Your task to perform on an android device: Go to Wikipedia Image 0: 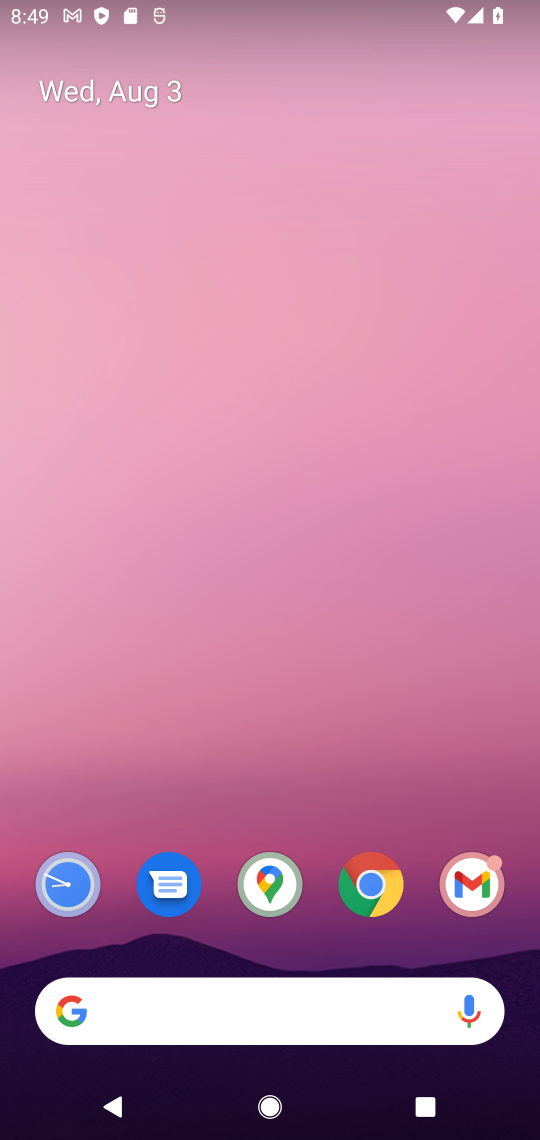
Step 0: click (169, 1020)
Your task to perform on an android device: Go to Wikipedia Image 1: 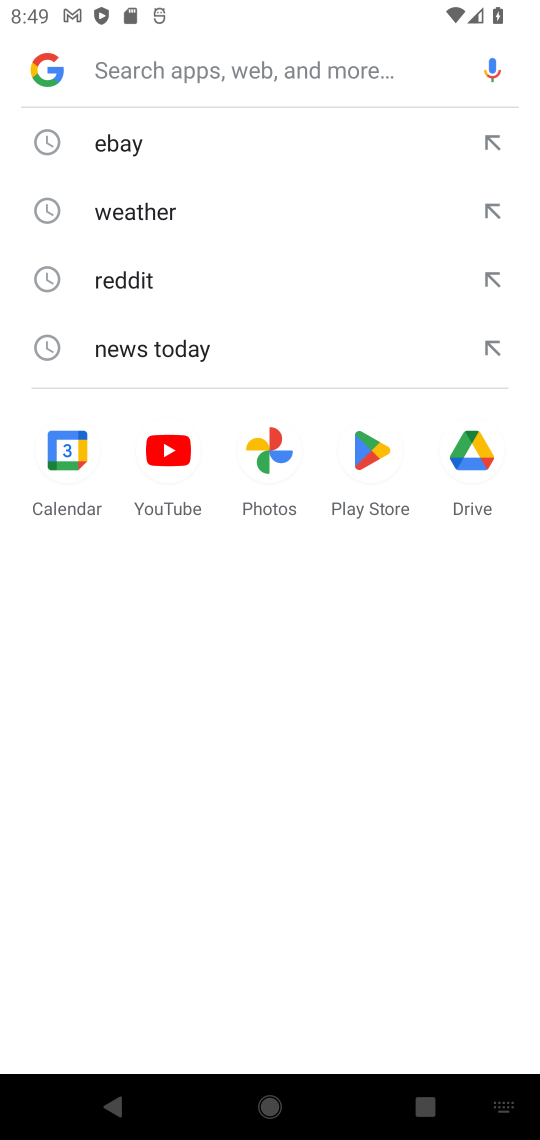
Step 1: type "Wikipedia"
Your task to perform on an android device: Go to Wikipedia Image 2: 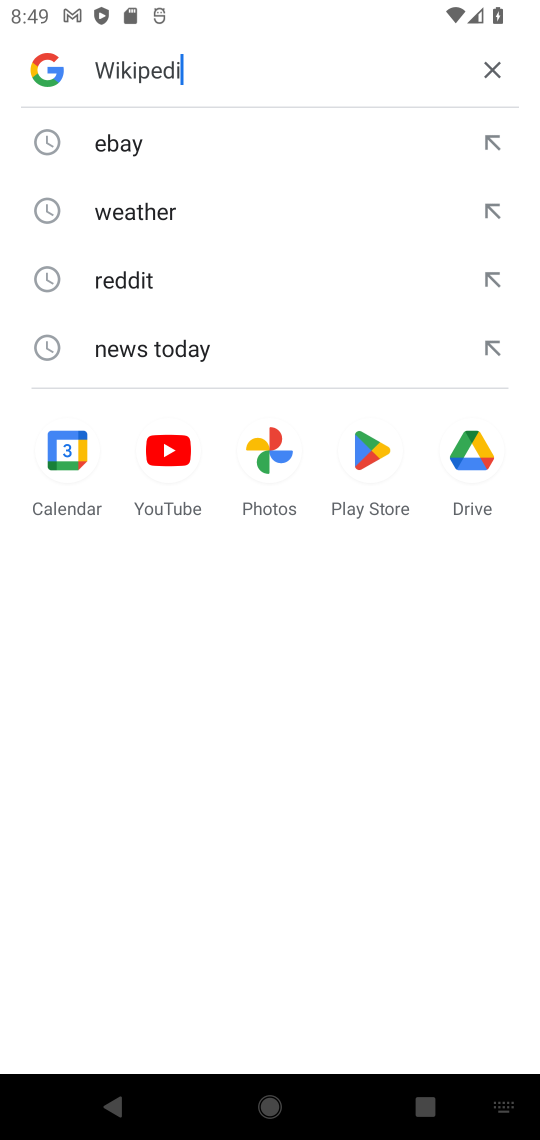
Step 2: type ""
Your task to perform on an android device: Go to Wikipedia Image 3: 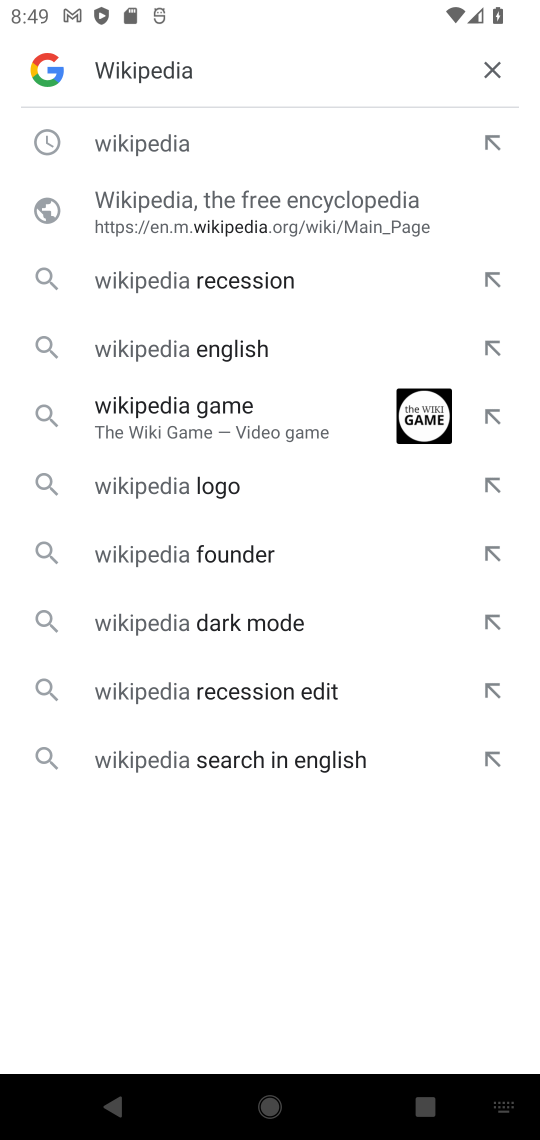
Step 3: click (149, 140)
Your task to perform on an android device: Go to Wikipedia Image 4: 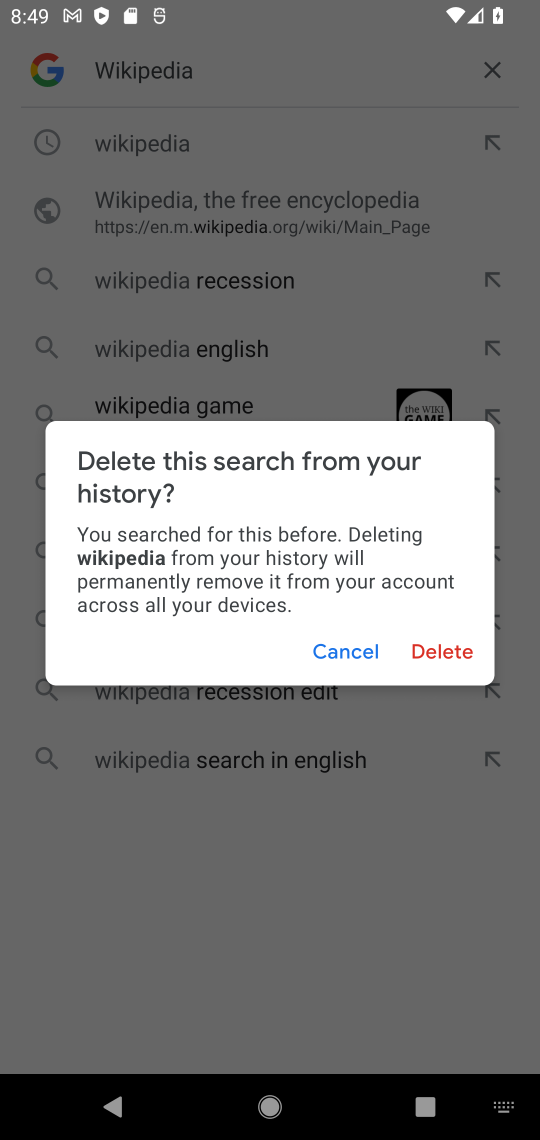
Step 4: click (354, 651)
Your task to perform on an android device: Go to Wikipedia Image 5: 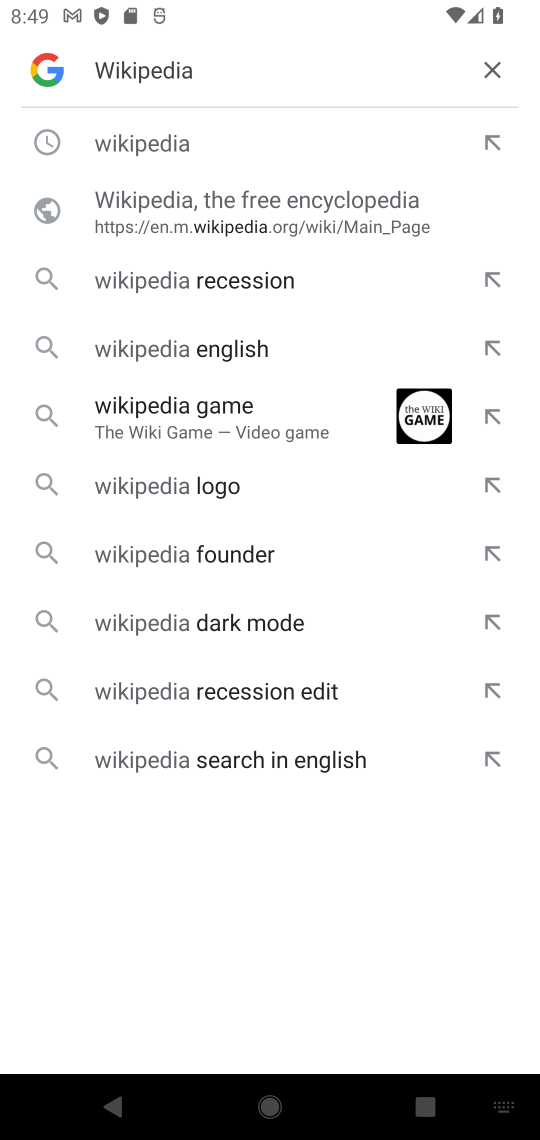
Step 5: click (155, 161)
Your task to perform on an android device: Go to Wikipedia Image 6: 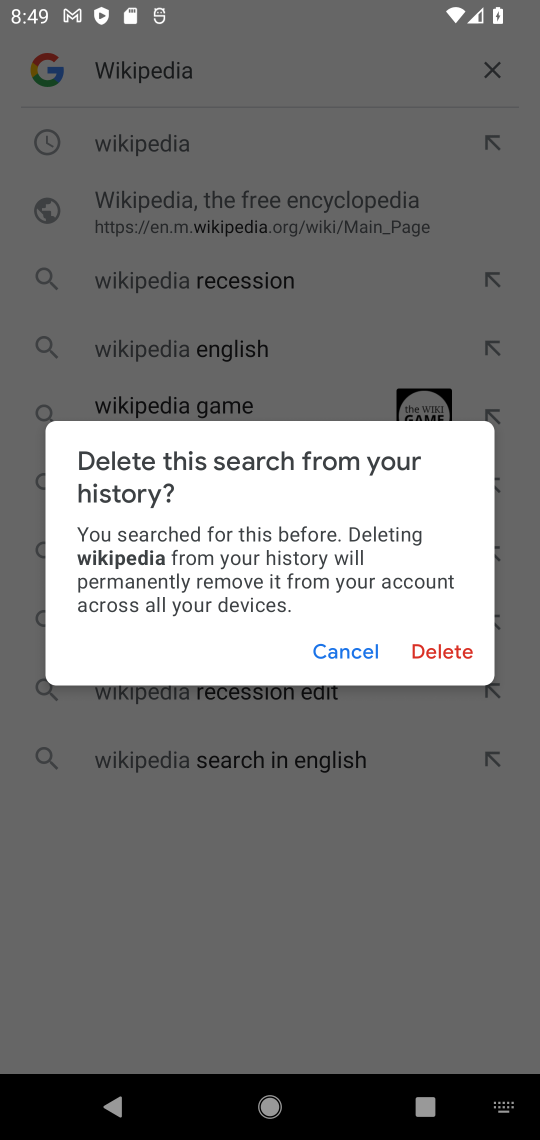
Step 6: task complete